Your task to perform on an android device: Open Chrome and go to the settings page Image 0: 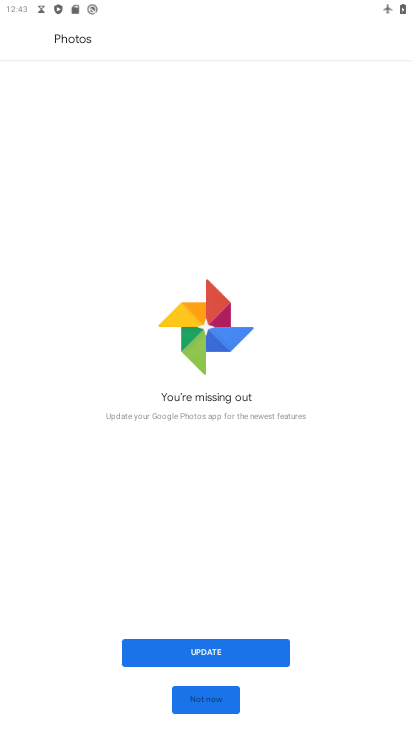
Step 0: press home button
Your task to perform on an android device: Open Chrome and go to the settings page Image 1: 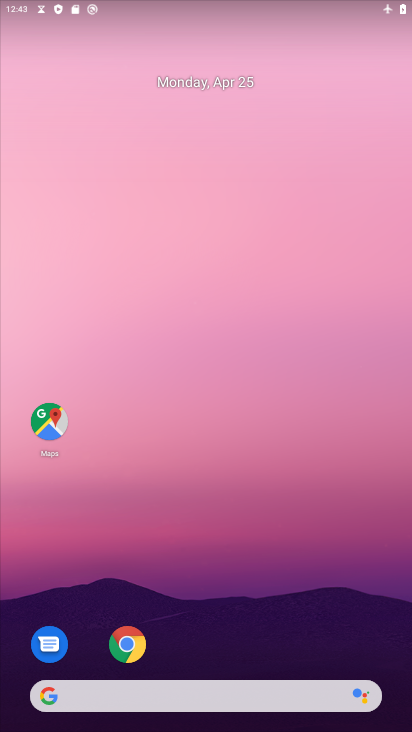
Step 1: click (128, 652)
Your task to perform on an android device: Open Chrome and go to the settings page Image 2: 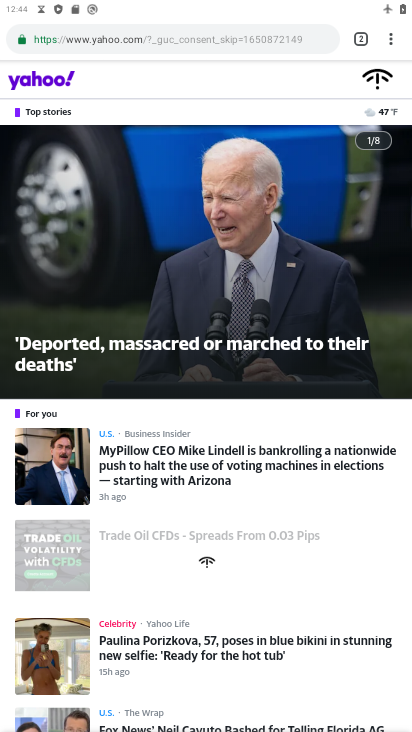
Step 2: task complete